Your task to perform on an android device: turn pop-ups off in chrome Image 0: 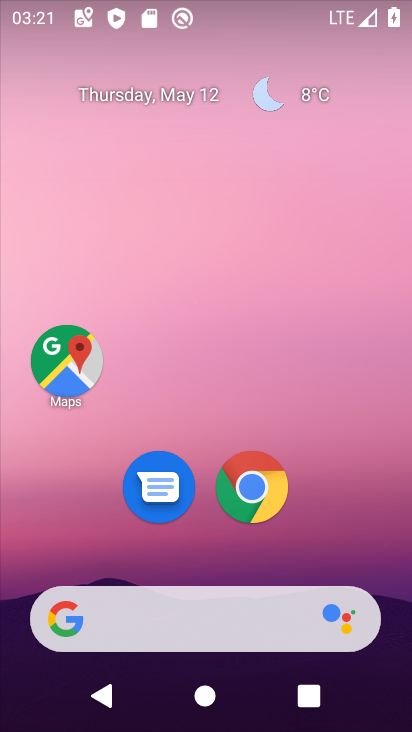
Step 0: drag from (314, 507) to (321, 61)
Your task to perform on an android device: turn pop-ups off in chrome Image 1: 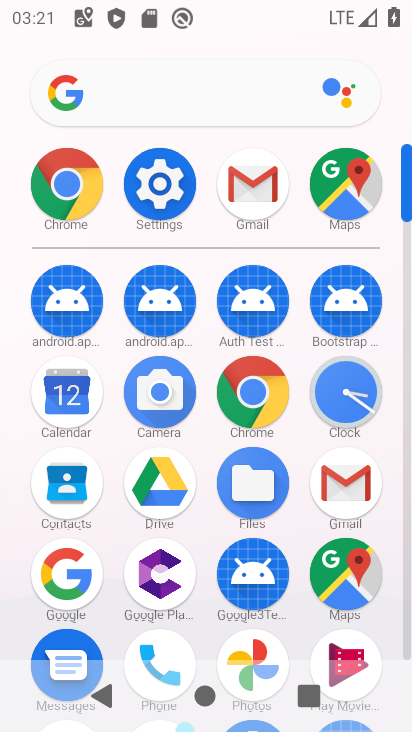
Step 1: click (270, 382)
Your task to perform on an android device: turn pop-ups off in chrome Image 2: 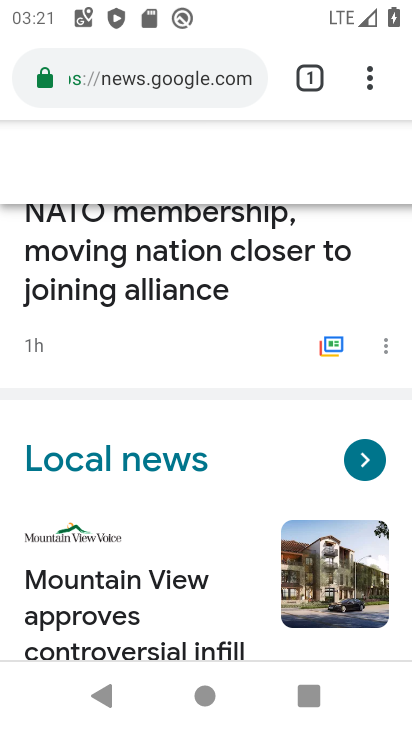
Step 2: drag from (377, 66) to (182, 541)
Your task to perform on an android device: turn pop-ups off in chrome Image 3: 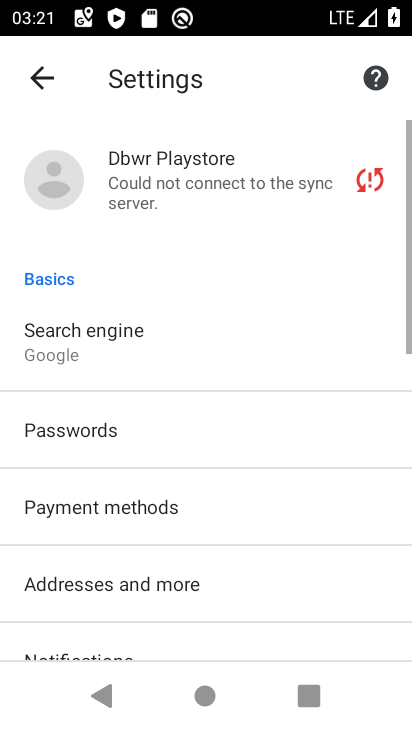
Step 3: drag from (203, 613) to (258, 86)
Your task to perform on an android device: turn pop-ups off in chrome Image 4: 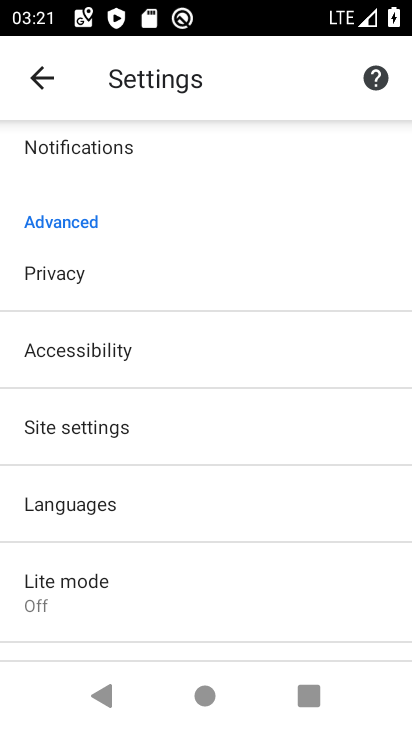
Step 4: click (118, 432)
Your task to perform on an android device: turn pop-ups off in chrome Image 5: 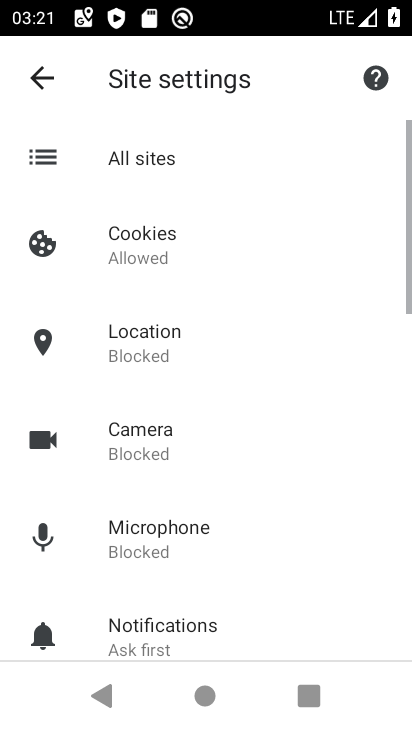
Step 5: drag from (241, 570) to (290, 138)
Your task to perform on an android device: turn pop-ups off in chrome Image 6: 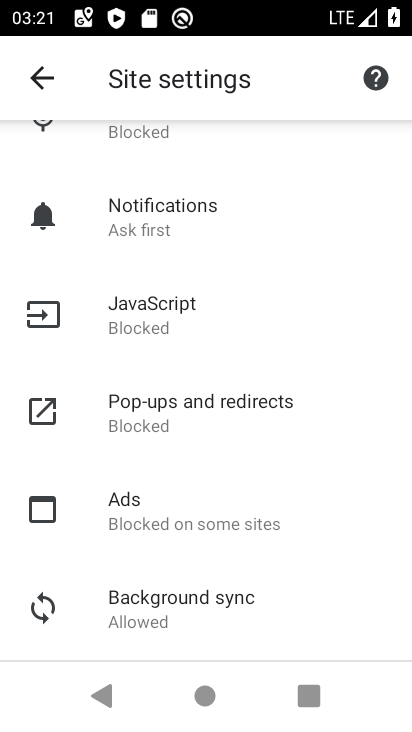
Step 6: click (238, 404)
Your task to perform on an android device: turn pop-ups off in chrome Image 7: 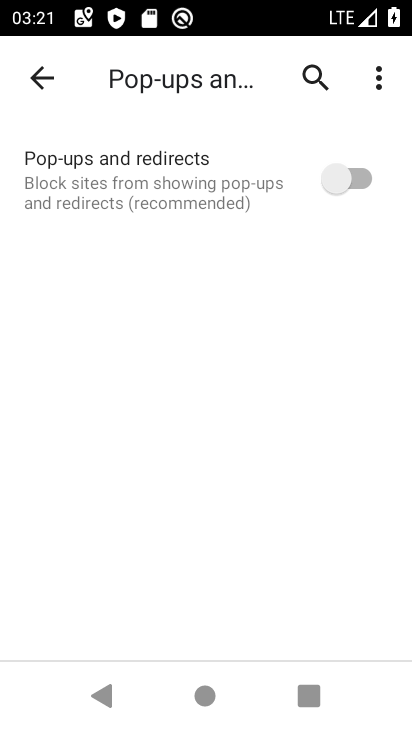
Step 7: task complete